Your task to perform on an android device: install app "Messenger Lite" Image 0: 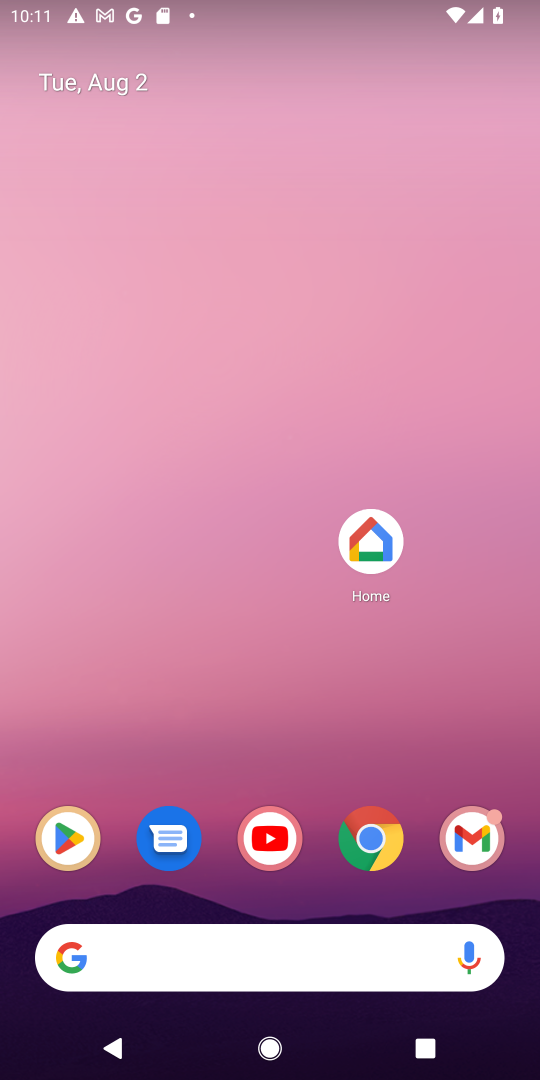
Step 0: press home button
Your task to perform on an android device: install app "Messenger Lite" Image 1: 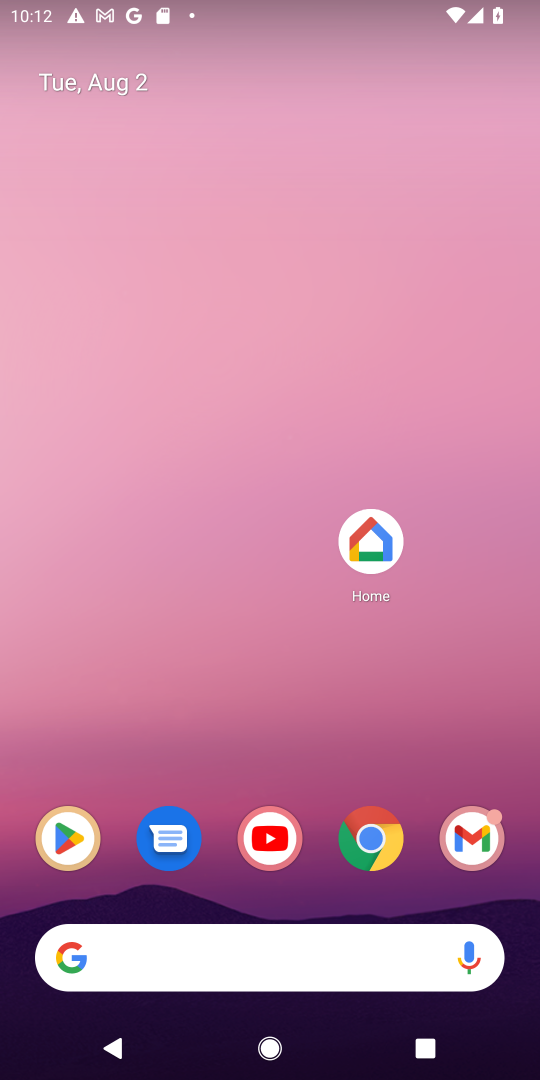
Step 1: drag from (283, 653) to (246, 116)
Your task to perform on an android device: install app "Messenger Lite" Image 2: 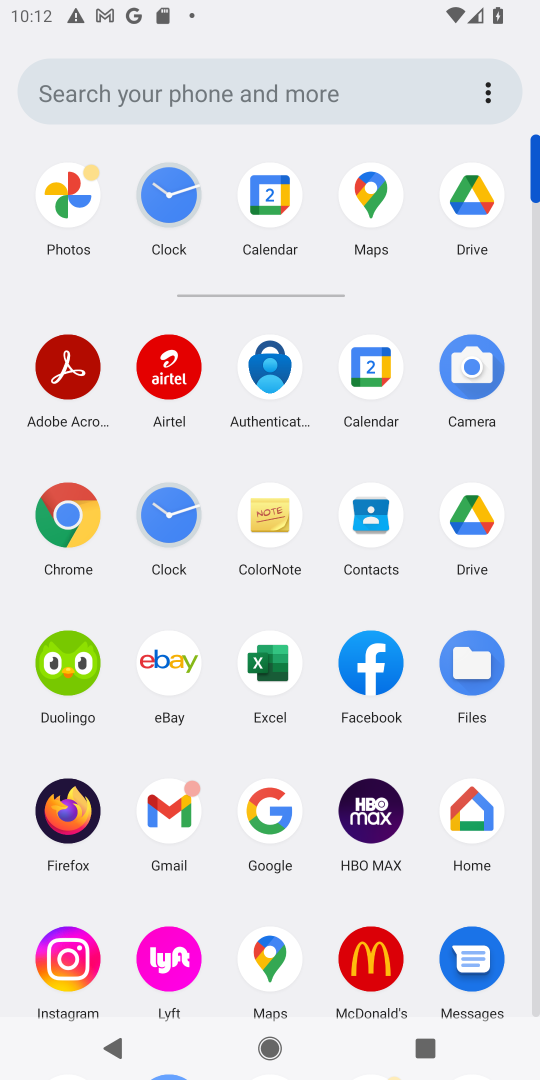
Step 2: drag from (414, 750) to (417, 347)
Your task to perform on an android device: install app "Messenger Lite" Image 3: 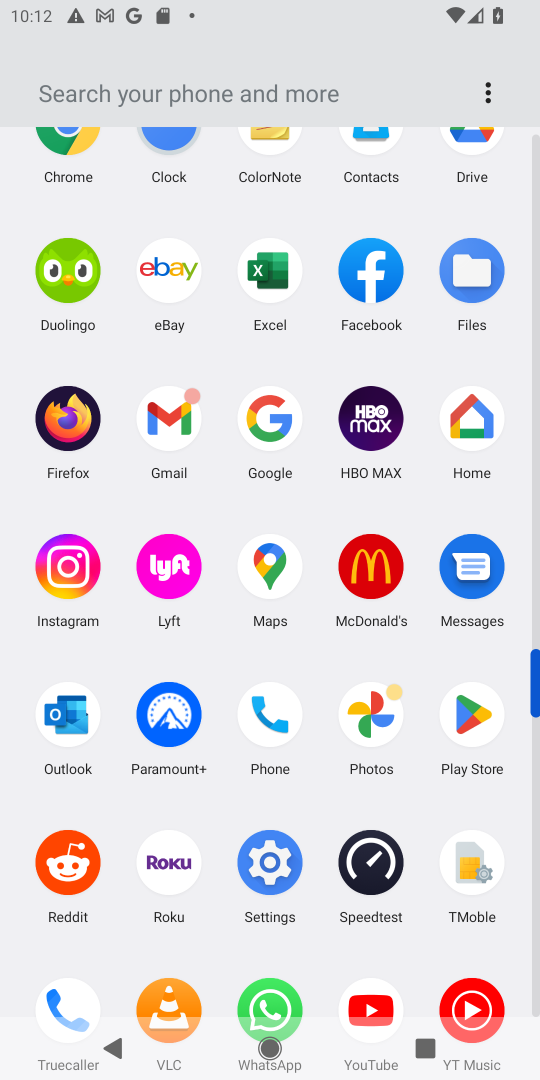
Step 3: click (468, 736)
Your task to perform on an android device: install app "Messenger Lite" Image 4: 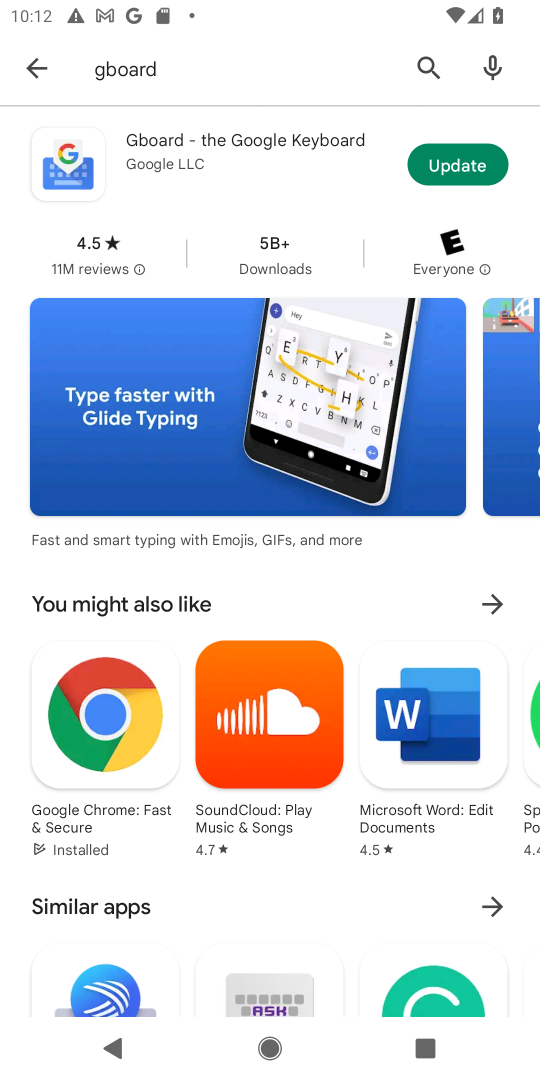
Step 4: click (420, 55)
Your task to perform on an android device: install app "Messenger Lite" Image 5: 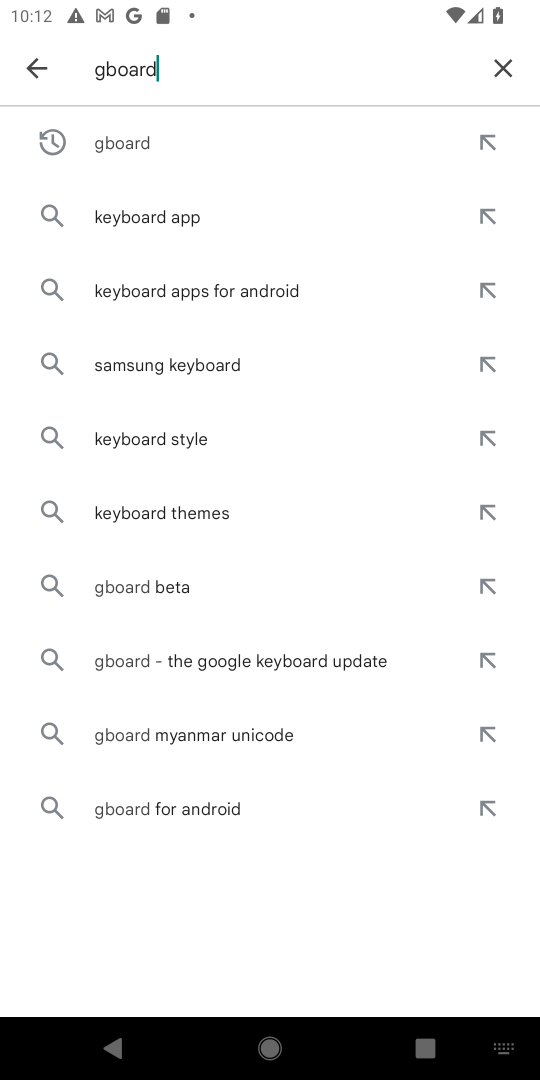
Step 5: click (493, 63)
Your task to perform on an android device: install app "Messenger Lite" Image 6: 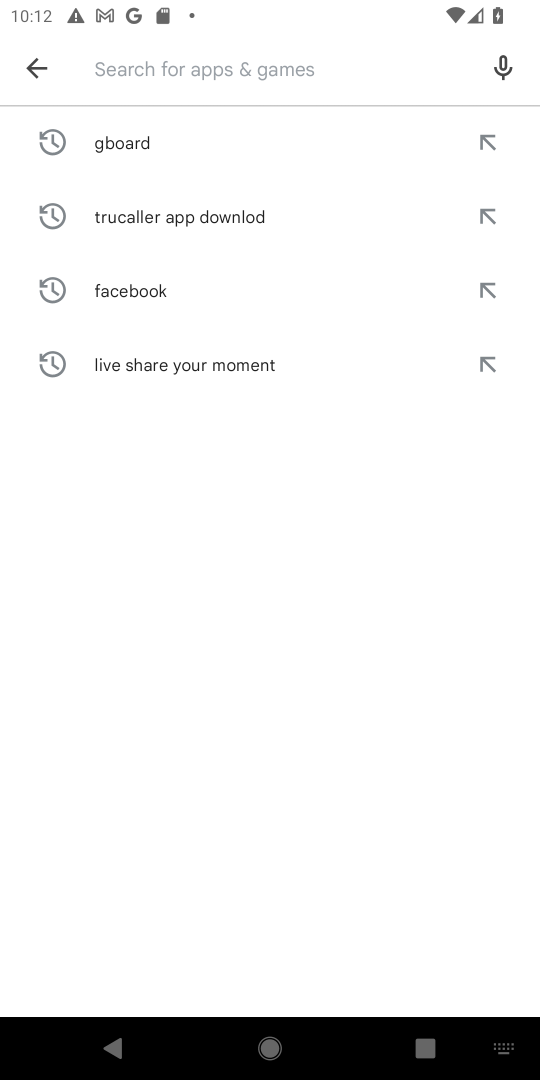
Step 6: type "messenger lite"
Your task to perform on an android device: install app "Messenger Lite" Image 7: 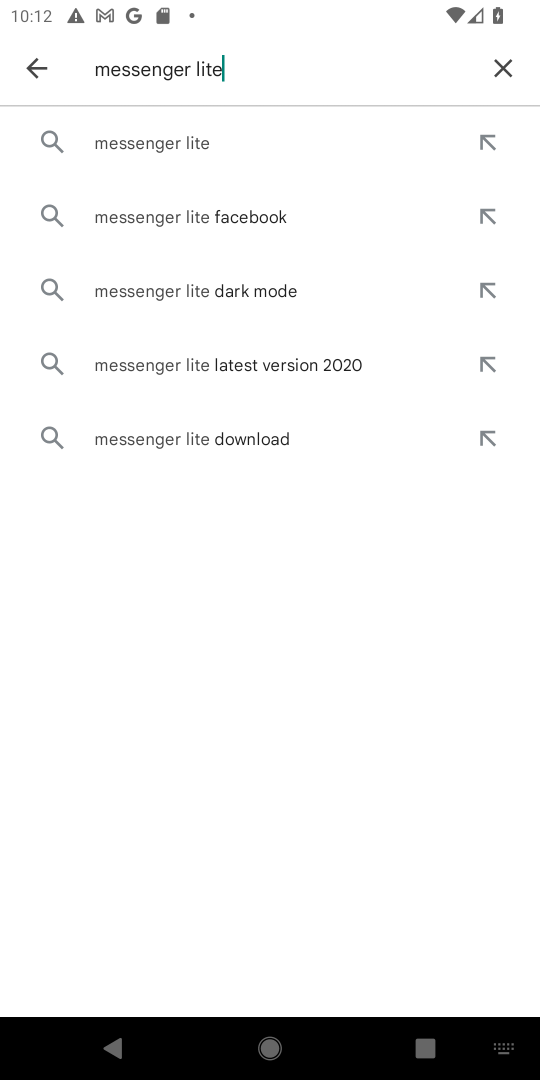
Step 7: click (271, 137)
Your task to perform on an android device: install app "Messenger Lite" Image 8: 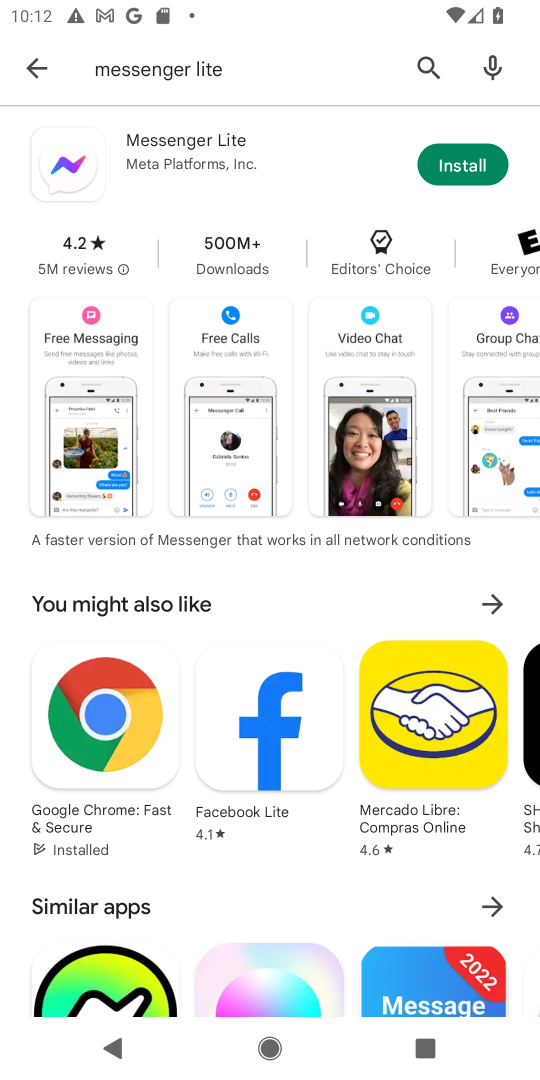
Step 8: click (463, 150)
Your task to perform on an android device: install app "Messenger Lite" Image 9: 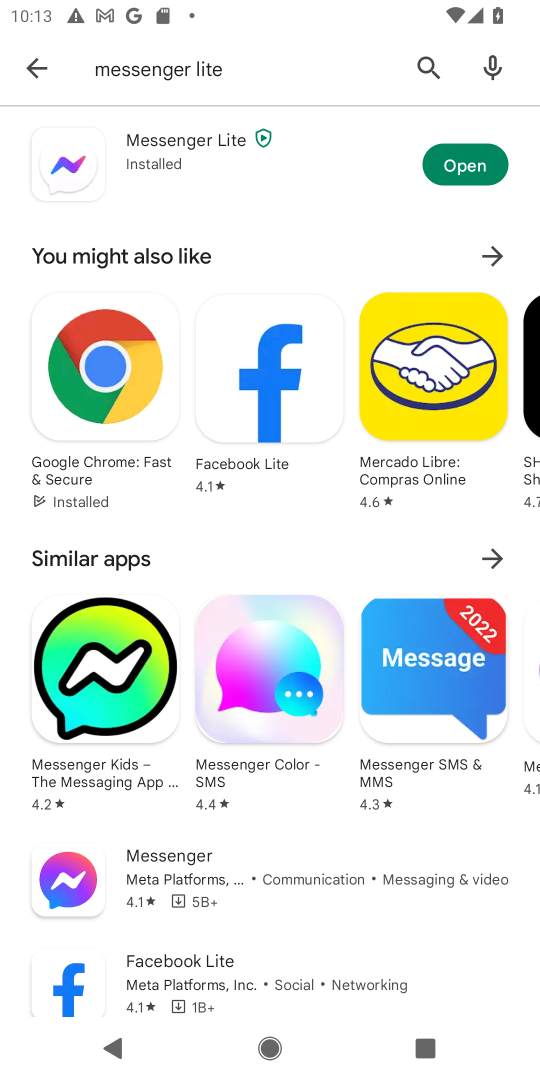
Step 9: task complete